Your task to perform on an android device: Go to network settings Image 0: 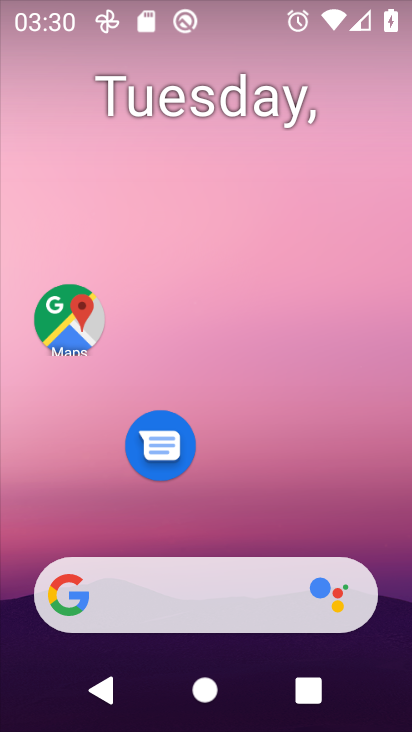
Step 0: drag from (296, 528) to (218, 144)
Your task to perform on an android device: Go to network settings Image 1: 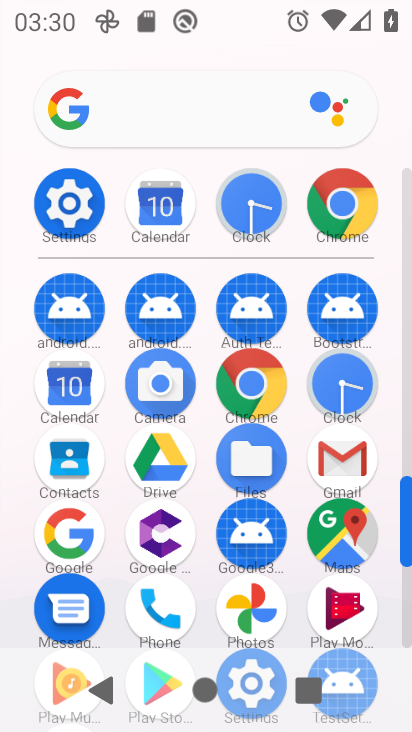
Step 1: click (70, 214)
Your task to perform on an android device: Go to network settings Image 2: 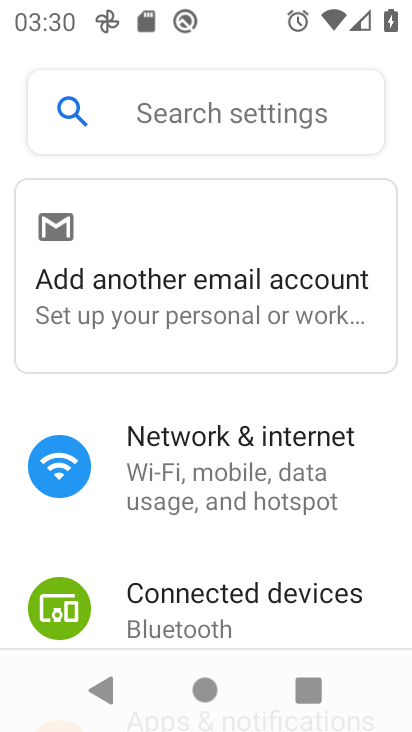
Step 2: click (200, 451)
Your task to perform on an android device: Go to network settings Image 3: 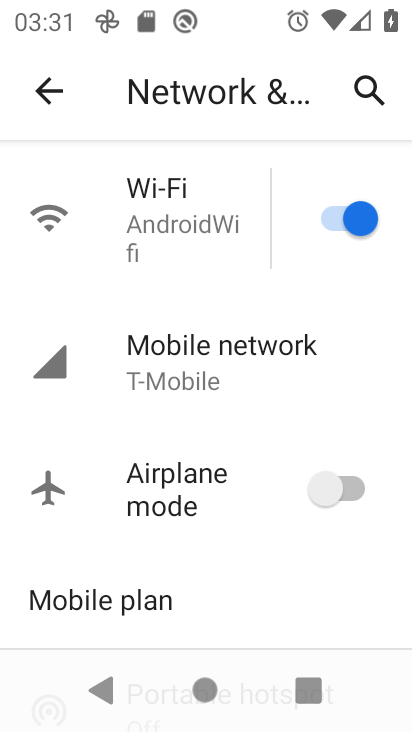
Step 3: task complete